Your task to perform on an android device: Go to location settings Image 0: 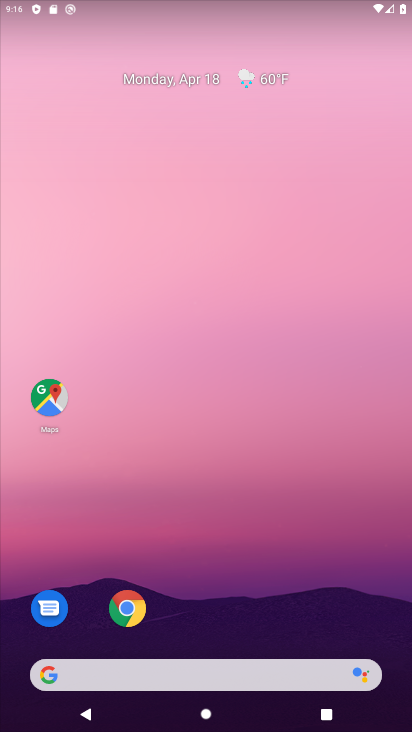
Step 0: drag from (344, 470) to (327, 70)
Your task to perform on an android device: Go to location settings Image 1: 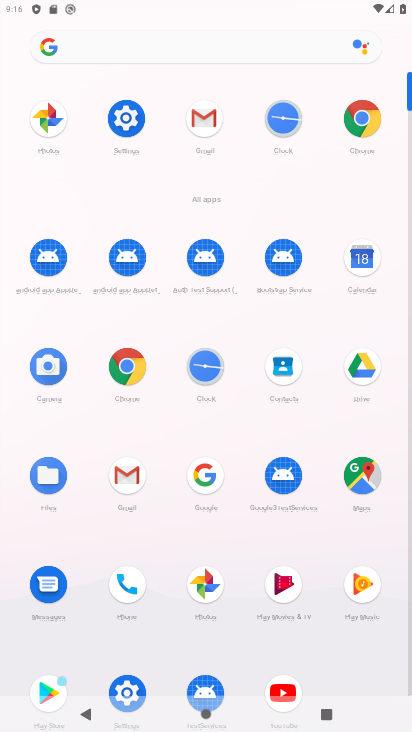
Step 1: click (135, 118)
Your task to perform on an android device: Go to location settings Image 2: 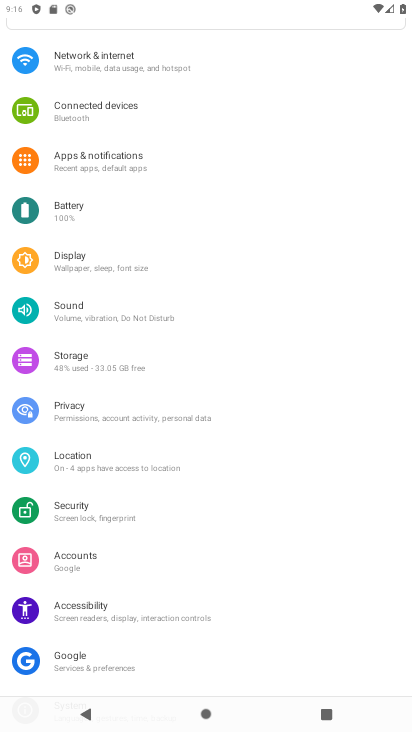
Step 2: click (76, 458)
Your task to perform on an android device: Go to location settings Image 3: 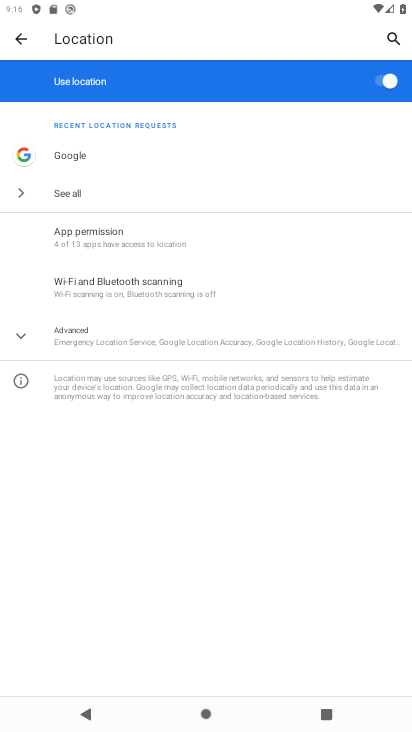
Step 3: task complete